Your task to perform on an android device: turn pop-ups on in chrome Image 0: 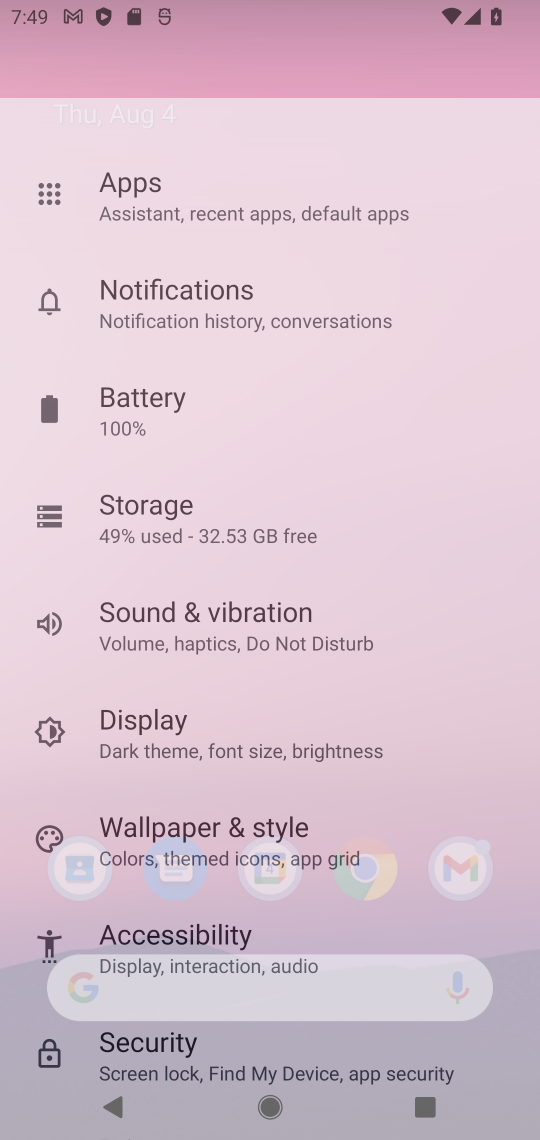
Step 0: press home button
Your task to perform on an android device: turn pop-ups on in chrome Image 1: 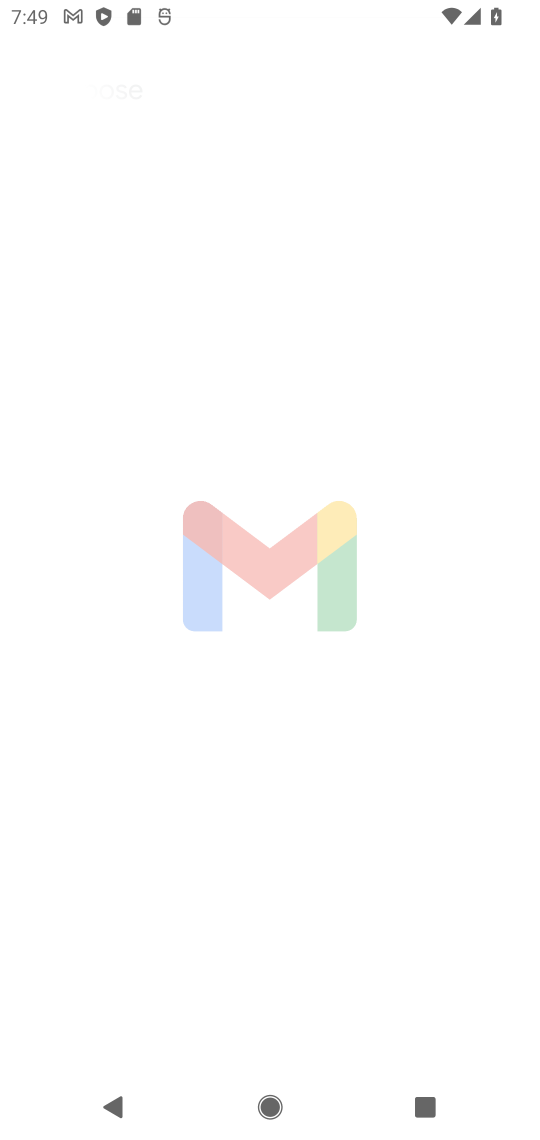
Step 1: press home button
Your task to perform on an android device: turn pop-ups on in chrome Image 2: 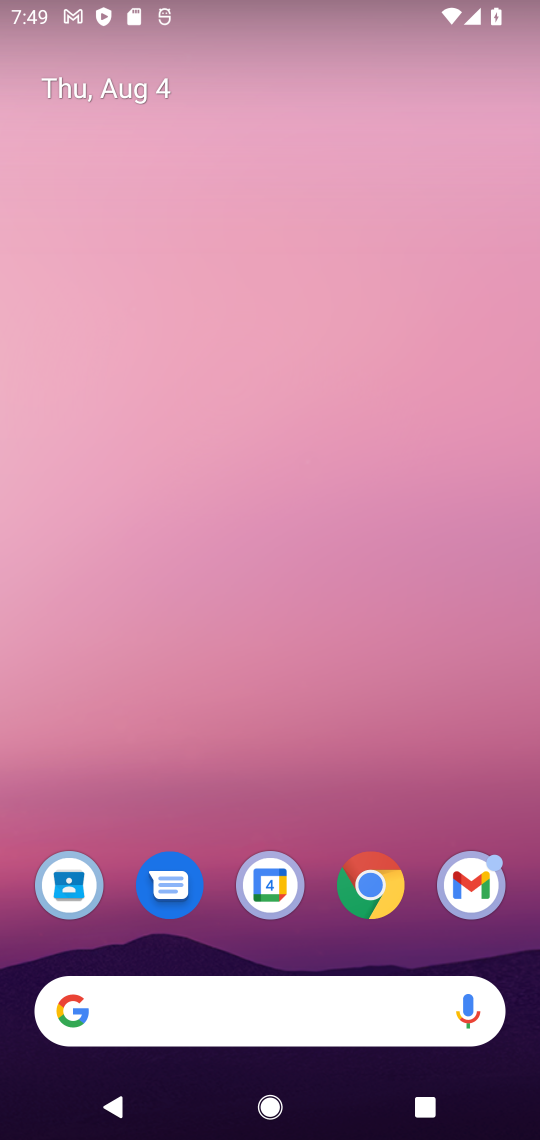
Step 2: drag from (352, 959) to (314, 61)
Your task to perform on an android device: turn pop-ups on in chrome Image 3: 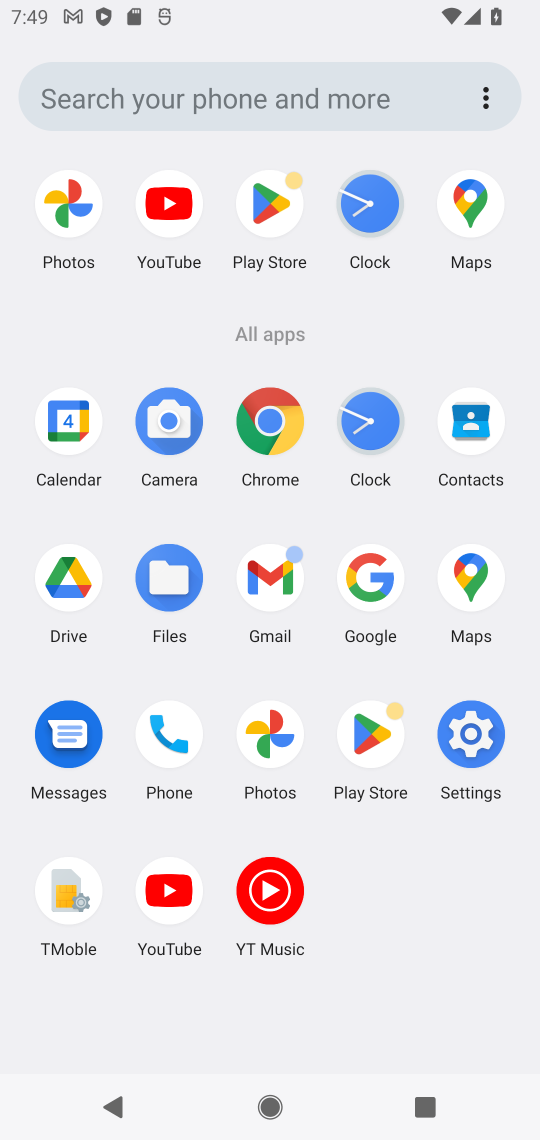
Step 3: click (286, 425)
Your task to perform on an android device: turn pop-ups on in chrome Image 4: 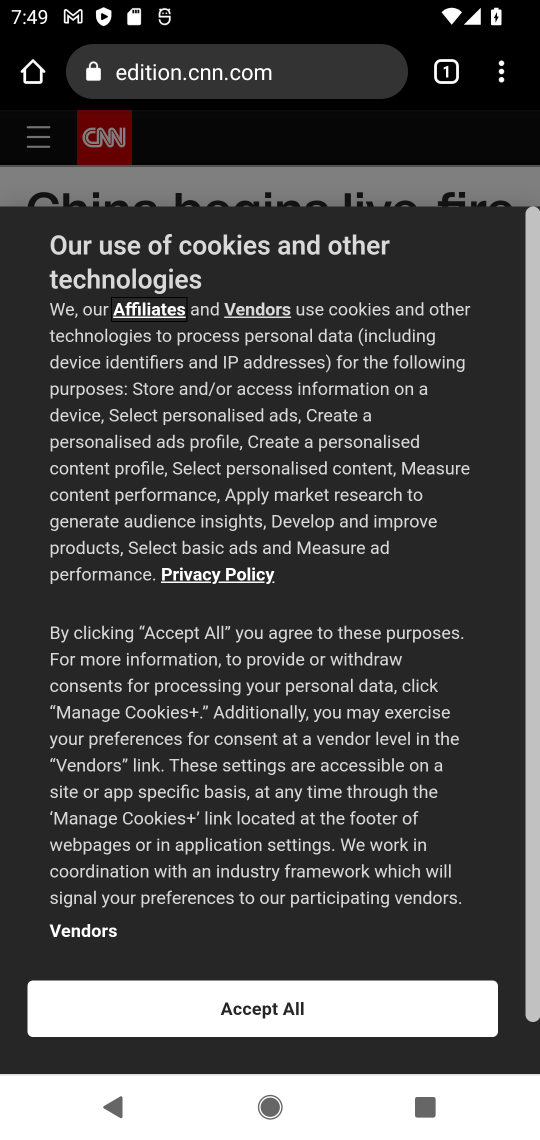
Step 4: click (185, 91)
Your task to perform on an android device: turn pop-ups on in chrome Image 5: 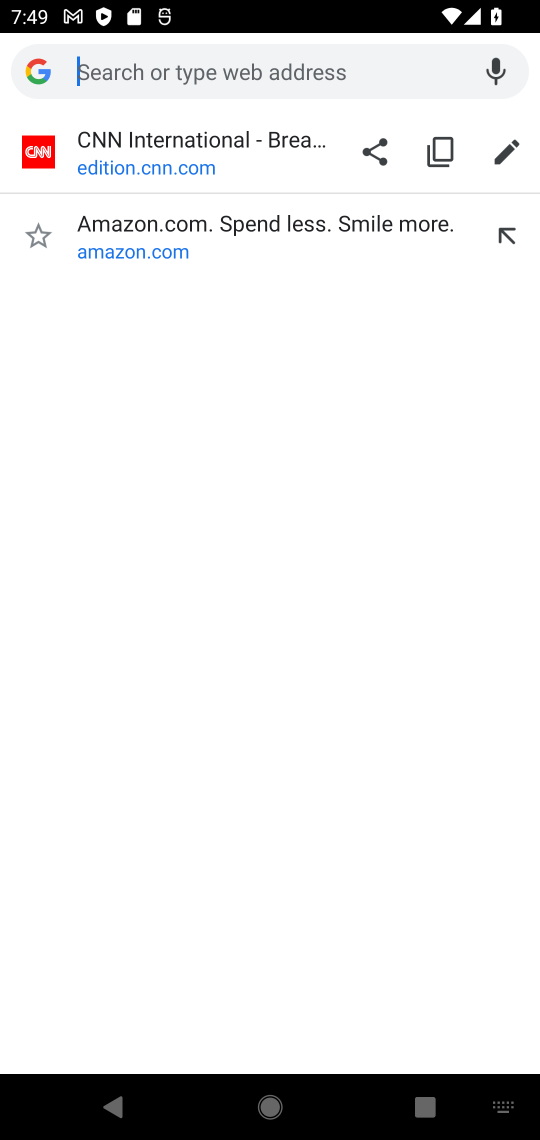
Step 5: press back button
Your task to perform on an android device: turn pop-ups on in chrome Image 6: 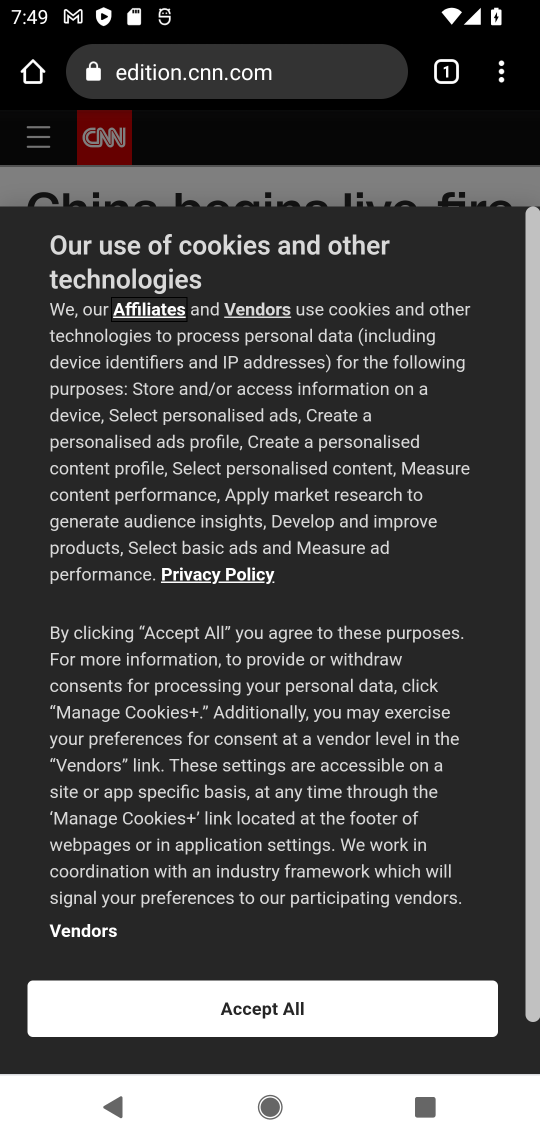
Step 6: drag from (504, 82) to (295, 852)
Your task to perform on an android device: turn pop-ups on in chrome Image 7: 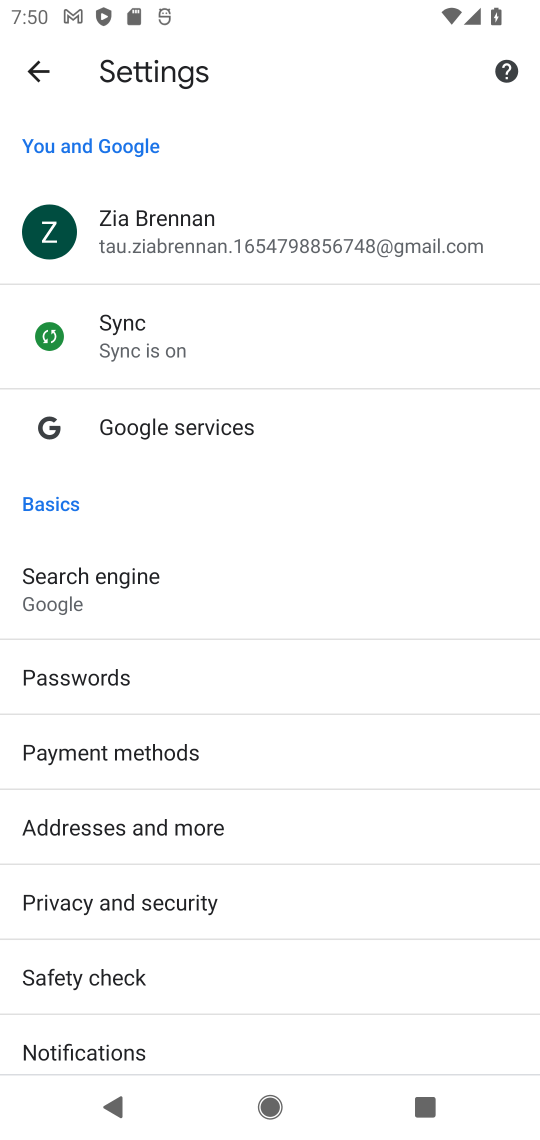
Step 7: drag from (258, 947) to (238, 151)
Your task to perform on an android device: turn pop-ups on in chrome Image 8: 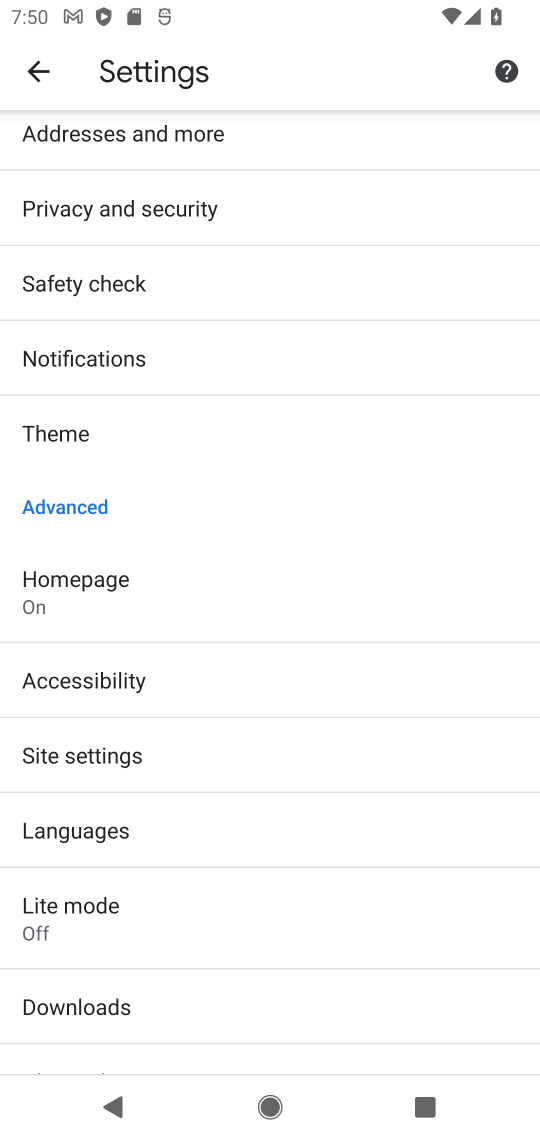
Step 8: click (162, 748)
Your task to perform on an android device: turn pop-ups on in chrome Image 9: 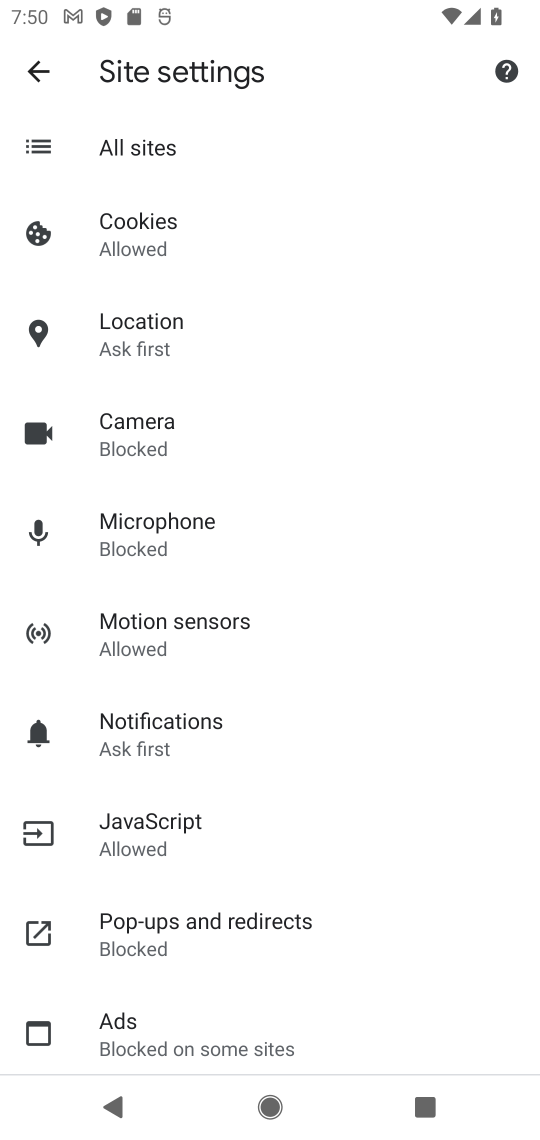
Step 9: click (295, 937)
Your task to perform on an android device: turn pop-ups on in chrome Image 10: 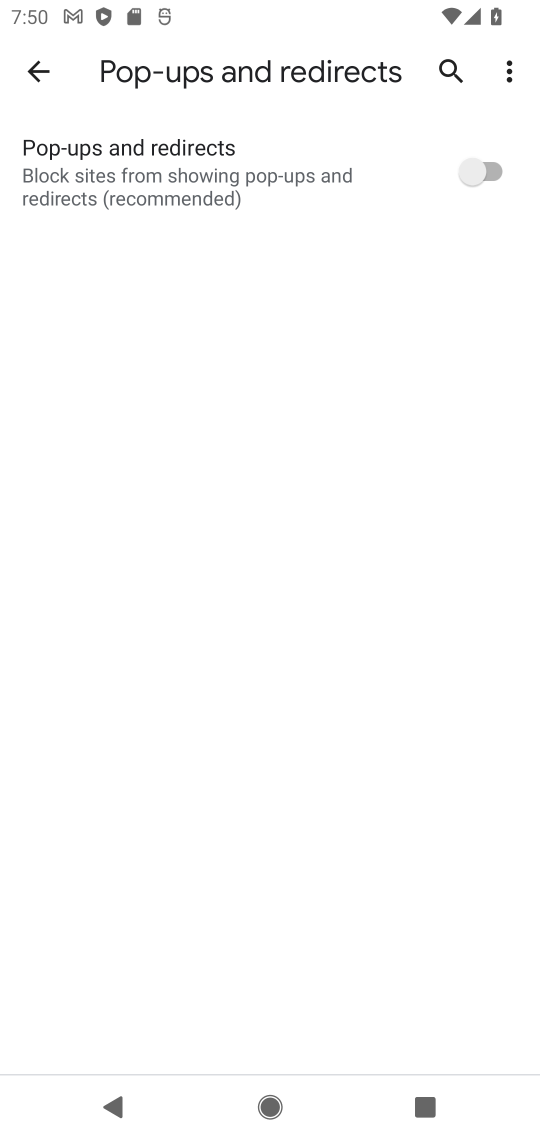
Step 10: click (344, 184)
Your task to perform on an android device: turn pop-ups on in chrome Image 11: 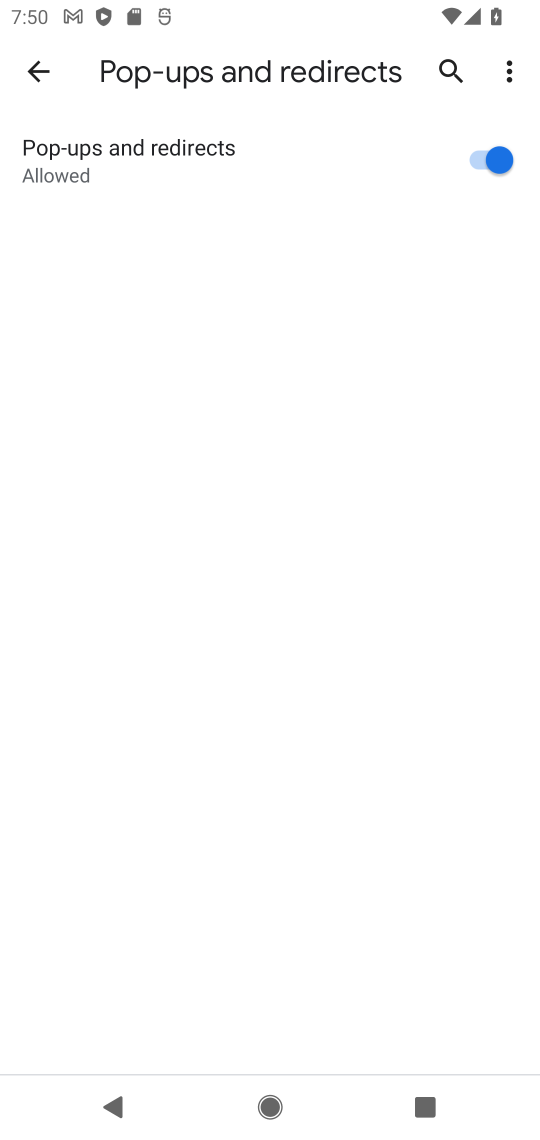
Step 11: task complete